Your task to perform on an android device: turn smart compose on in the gmail app Image 0: 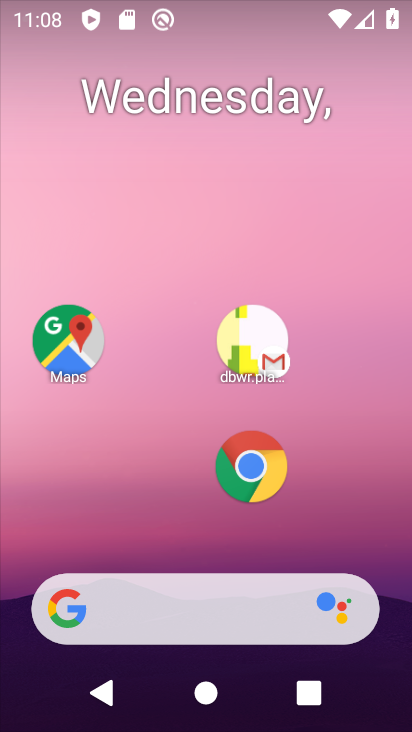
Step 0: drag from (281, 504) to (220, 138)
Your task to perform on an android device: turn smart compose on in the gmail app Image 1: 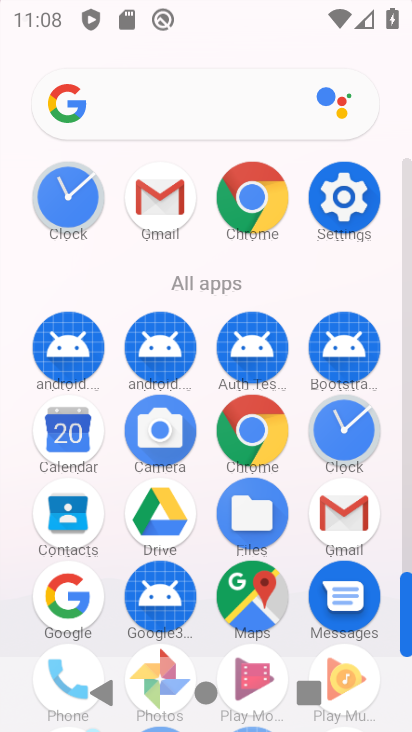
Step 1: drag from (310, 436) to (224, 129)
Your task to perform on an android device: turn smart compose on in the gmail app Image 2: 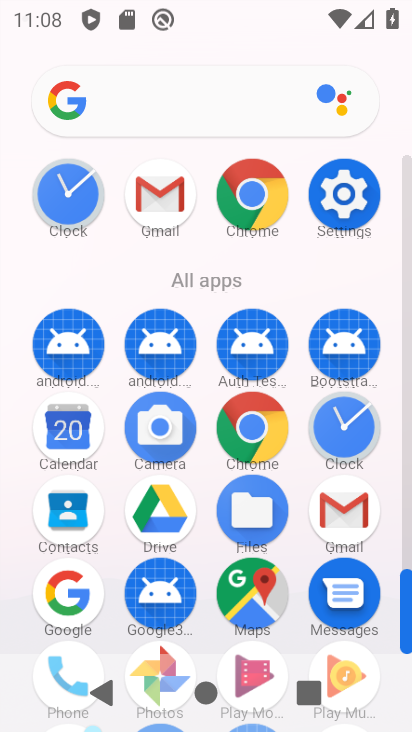
Step 2: click (152, 200)
Your task to perform on an android device: turn smart compose on in the gmail app Image 3: 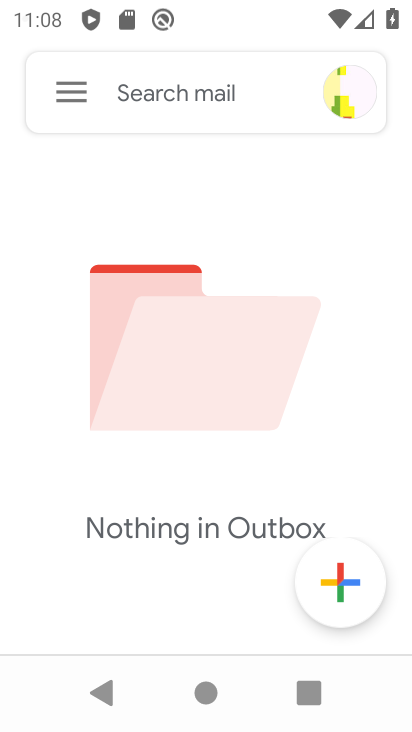
Step 3: click (80, 89)
Your task to perform on an android device: turn smart compose on in the gmail app Image 4: 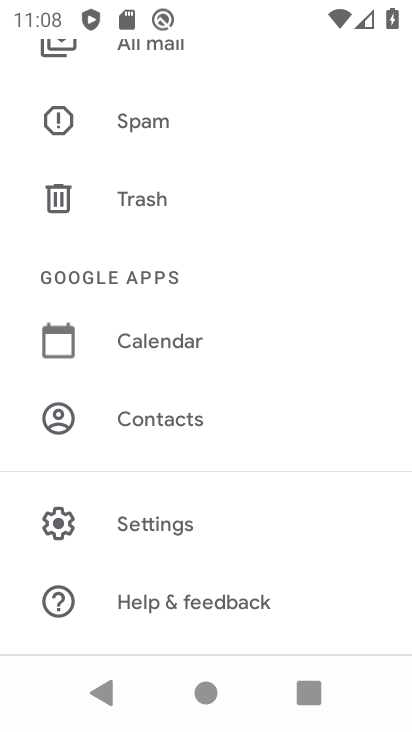
Step 4: click (155, 522)
Your task to perform on an android device: turn smart compose on in the gmail app Image 5: 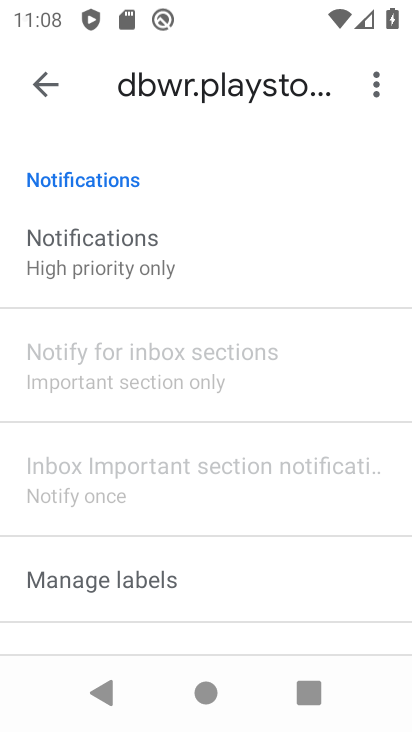
Step 5: drag from (173, 523) to (152, 221)
Your task to perform on an android device: turn smart compose on in the gmail app Image 6: 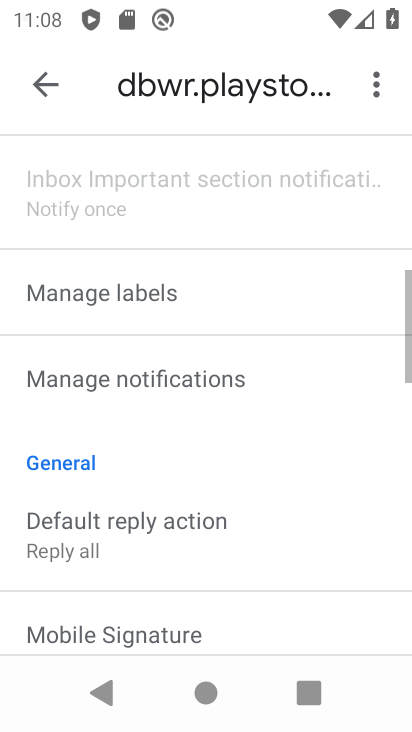
Step 6: drag from (129, 466) to (91, 244)
Your task to perform on an android device: turn smart compose on in the gmail app Image 7: 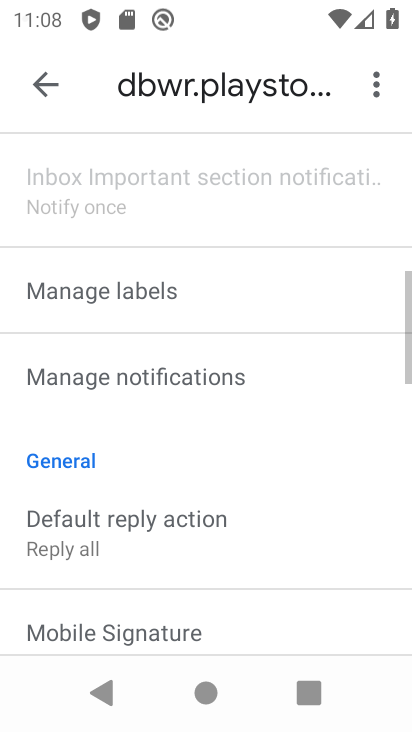
Step 7: drag from (95, 450) to (70, 196)
Your task to perform on an android device: turn smart compose on in the gmail app Image 8: 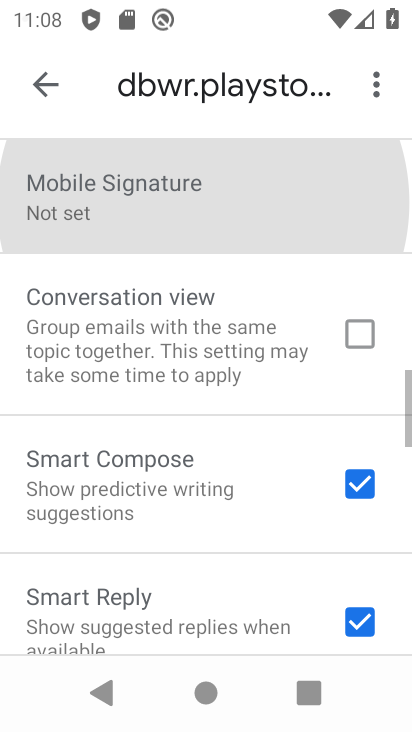
Step 8: drag from (137, 348) to (126, 264)
Your task to perform on an android device: turn smart compose on in the gmail app Image 9: 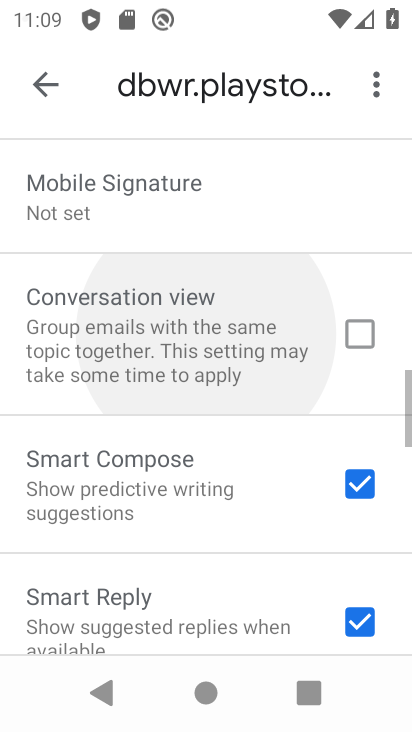
Step 9: click (118, 270)
Your task to perform on an android device: turn smart compose on in the gmail app Image 10: 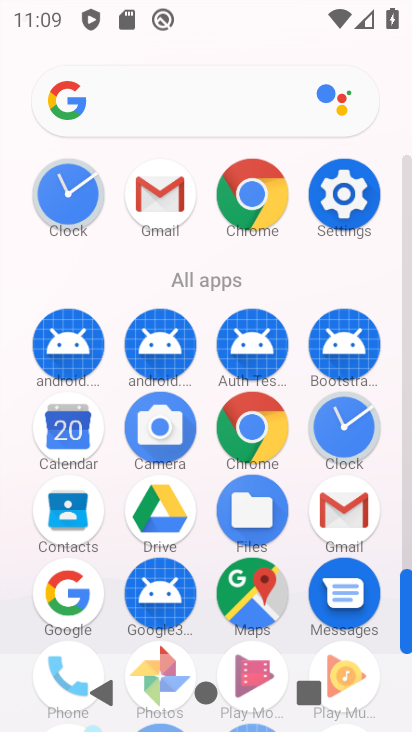
Step 10: click (342, 499)
Your task to perform on an android device: turn smart compose on in the gmail app Image 11: 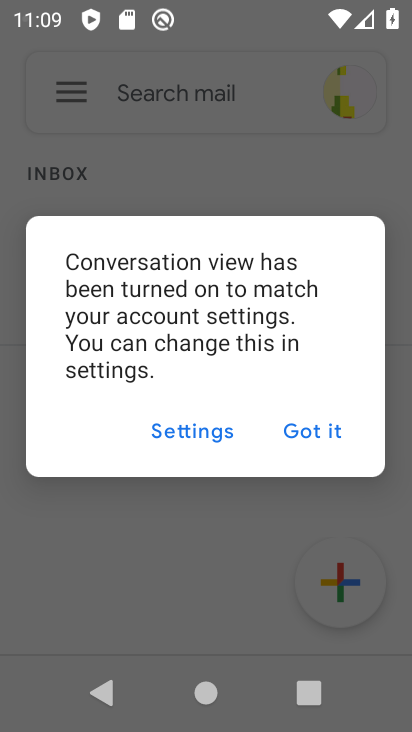
Step 11: click (313, 425)
Your task to perform on an android device: turn smart compose on in the gmail app Image 12: 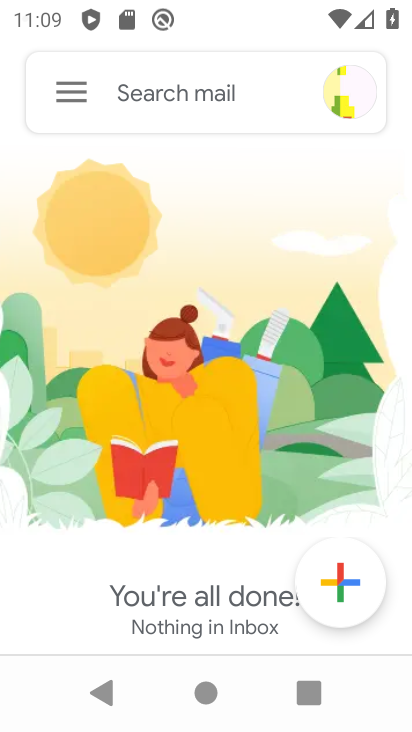
Step 12: click (54, 80)
Your task to perform on an android device: turn smart compose on in the gmail app Image 13: 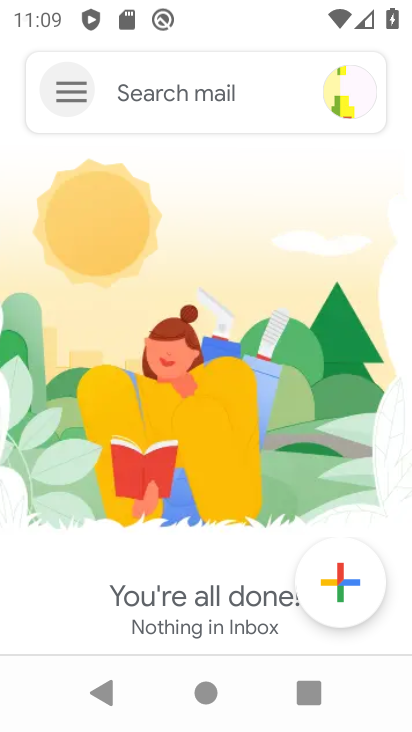
Step 13: click (58, 82)
Your task to perform on an android device: turn smart compose on in the gmail app Image 14: 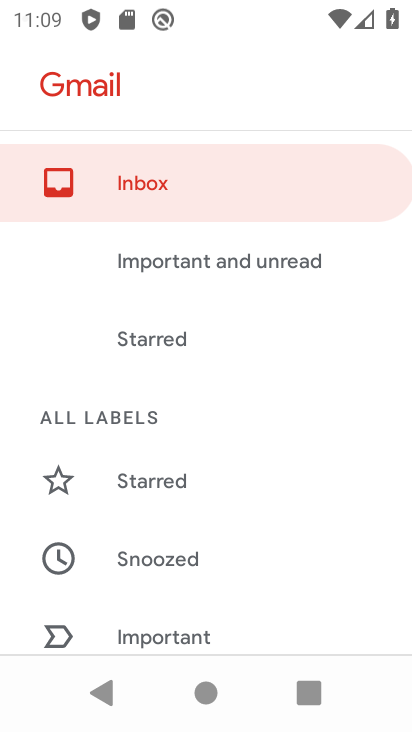
Step 14: drag from (162, 537) to (250, 231)
Your task to perform on an android device: turn smart compose on in the gmail app Image 15: 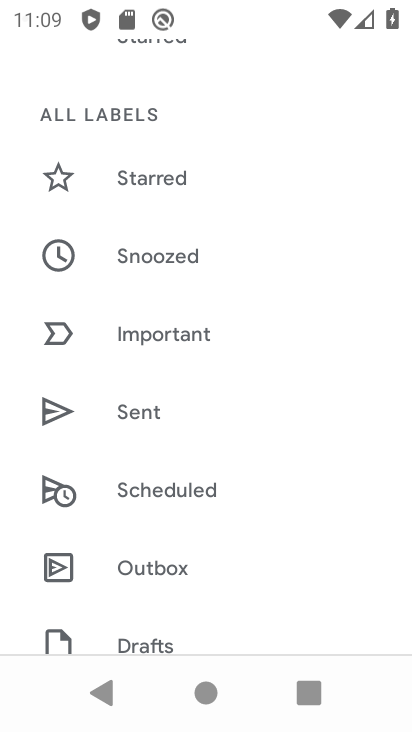
Step 15: drag from (265, 453) to (263, 199)
Your task to perform on an android device: turn smart compose on in the gmail app Image 16: 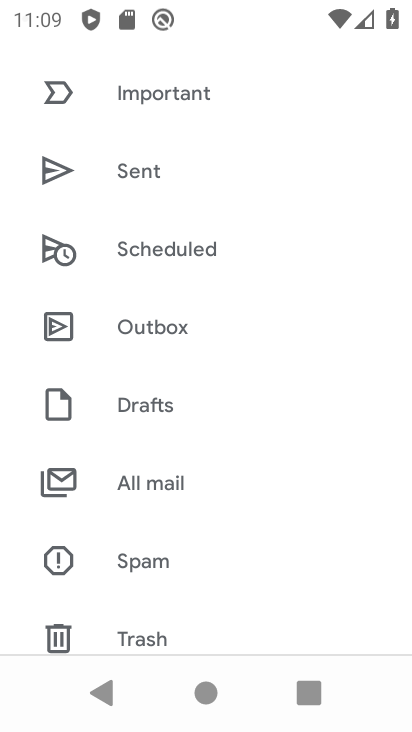
Step 16: click (218, 261)
Your task to perform on an android device: turn smart compose on in the gmail app Image 17: 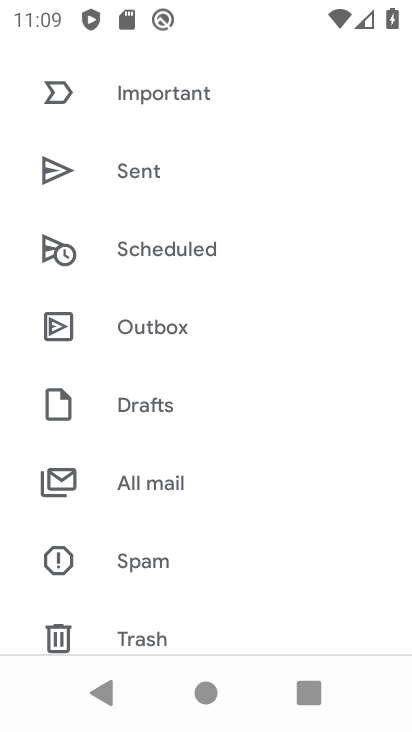
Step 17: drag from (268, 518) to (257, 81)
Your task to perform on an android device: turn smart compose on in the gmail app Image 18: 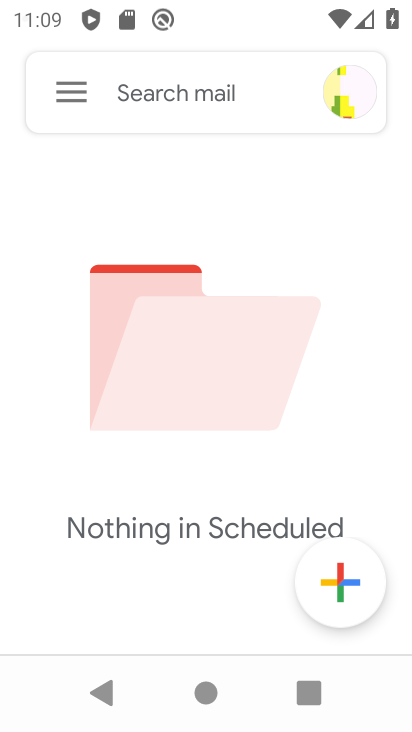
Step 18: click (73, 101)
Your task to perform on an android device: turn smart compose on in the gmail app Image 19: 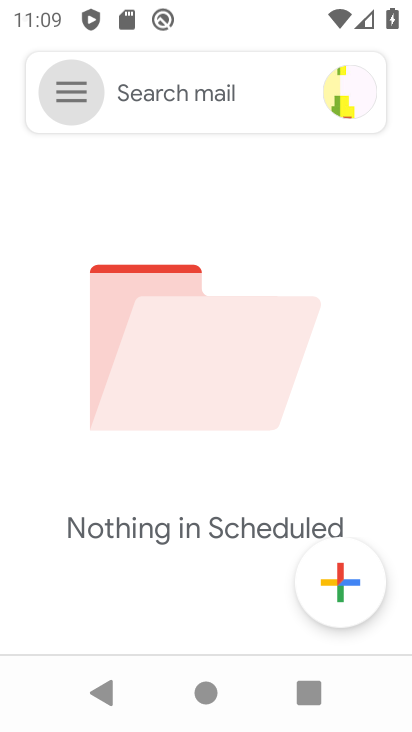
Step 19: click (74, 101)
Your task to perform on an android device: turn smart compose on in the gmail app Image 20: 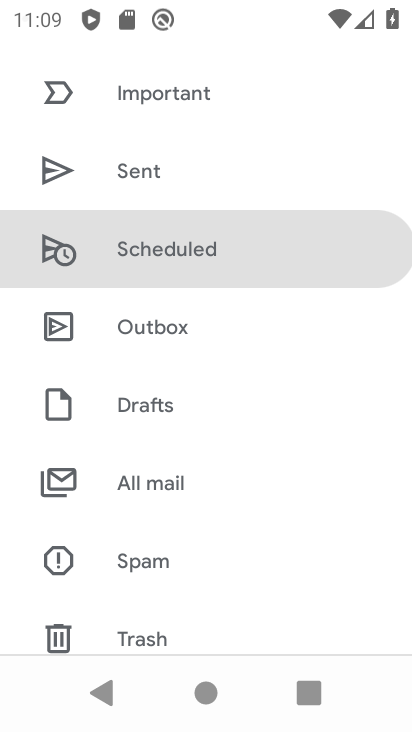
Step 20: drag from (207, 560) to (175, 220)
Your task to perform on an android device: turn smart compose on in the gmail app Image 21: 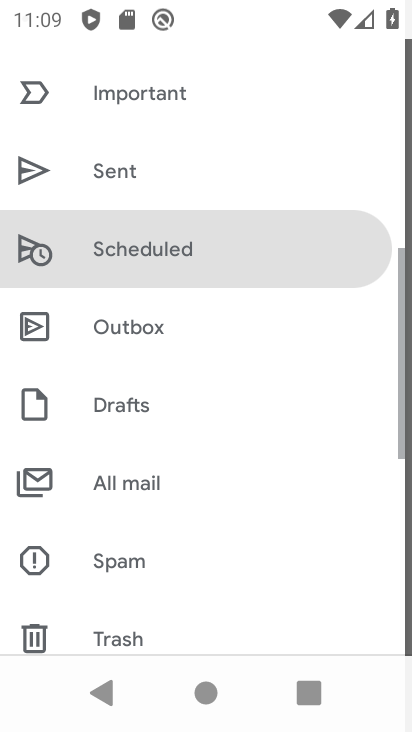
Step 21: click (156, 256)
Your task to perform on an android device: turn smart compose on in the gmail app Image 22: 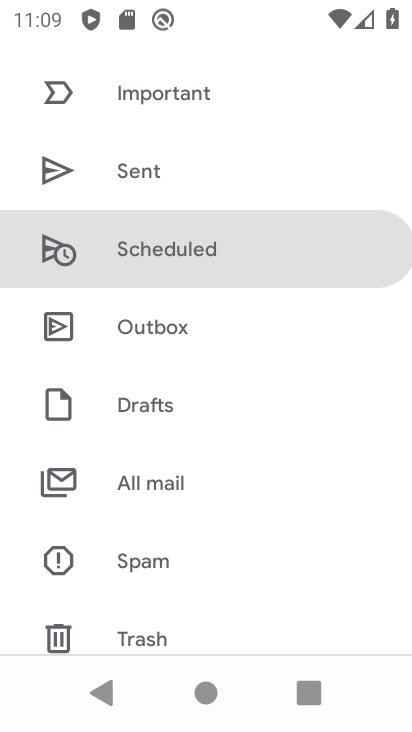
Step 22: drag from (174, 547) to (219, 196)
Your task to perform on an android device: turn smart compose on in the gmail app Image 23: 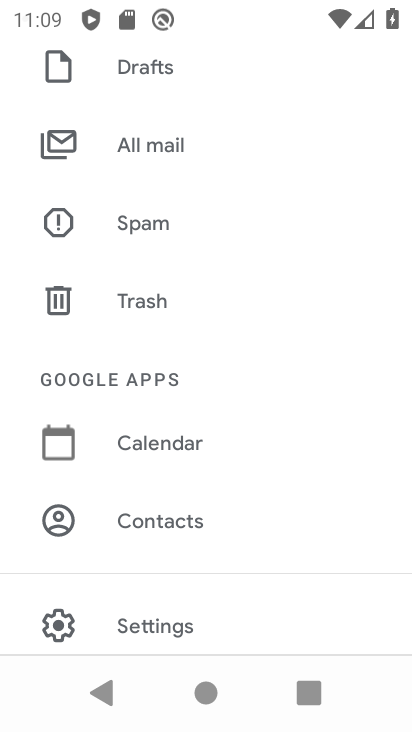
Step 23: drag from (212, 388) to (233, 41)
Your task to perform on an android device: turn smart compose on in the gmail app Image 24: 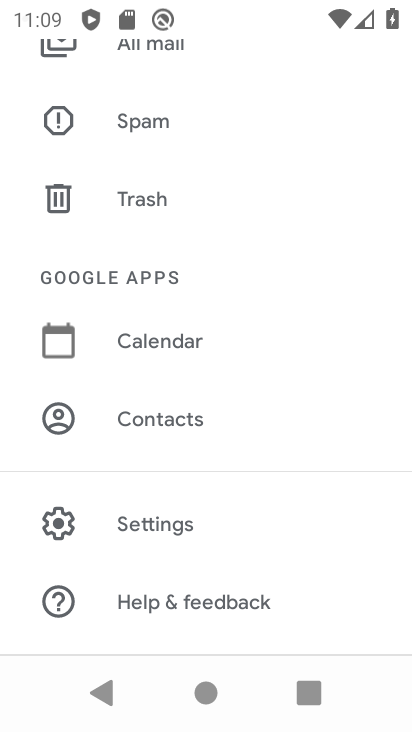
Step 24: drag from (258, 503) to (260, 191)
Your task to perform on an android device: turn smart compose on in the gmail app Image 25: 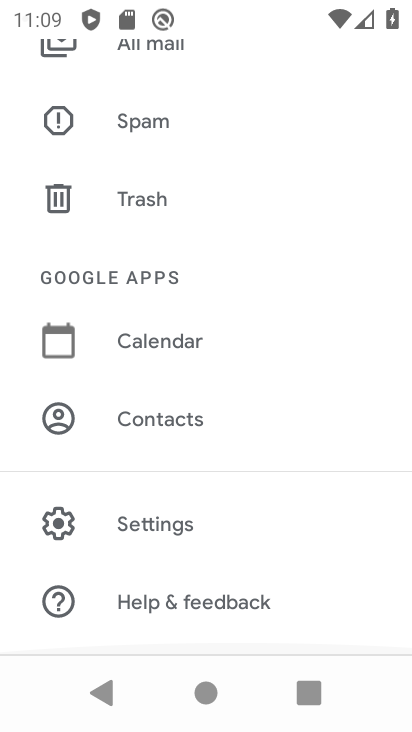
Step 25: click (161, 527)
Your task to perform on an android device: turn smart compose on in the gmail app Image 26: 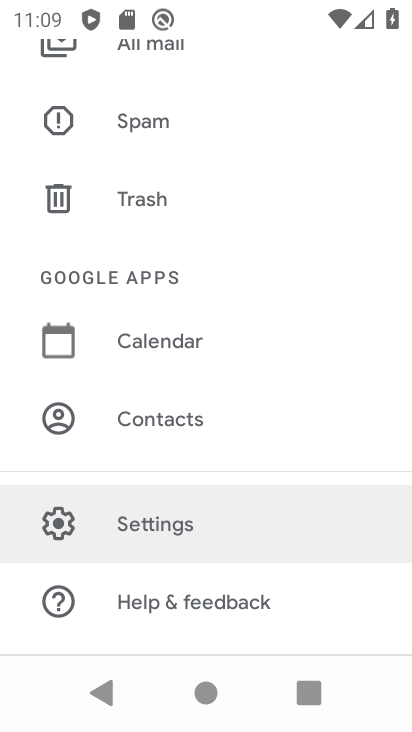
Step 26: click (161, 527)
Your task to perform on an android device: turn smart compose on in the gmail app Image 27: 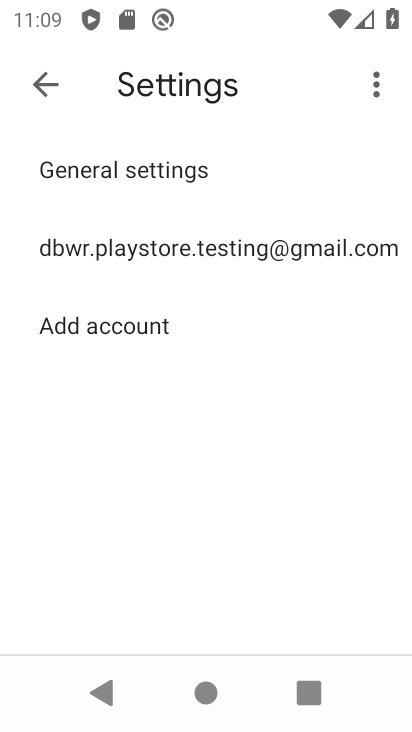
Step 27: click (195, 255)
Your task to perform on an android device: turn smart compose on in the gmail app Image 28: 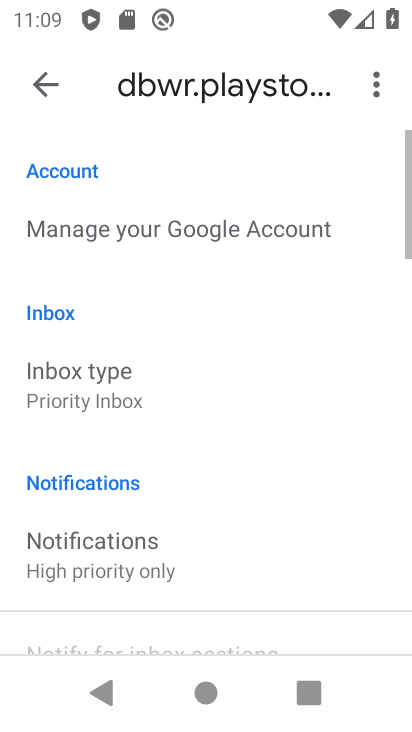
Step 28: task complete